Your task to perform on an android device: uninstall "Yahoo Mail" Image 0: 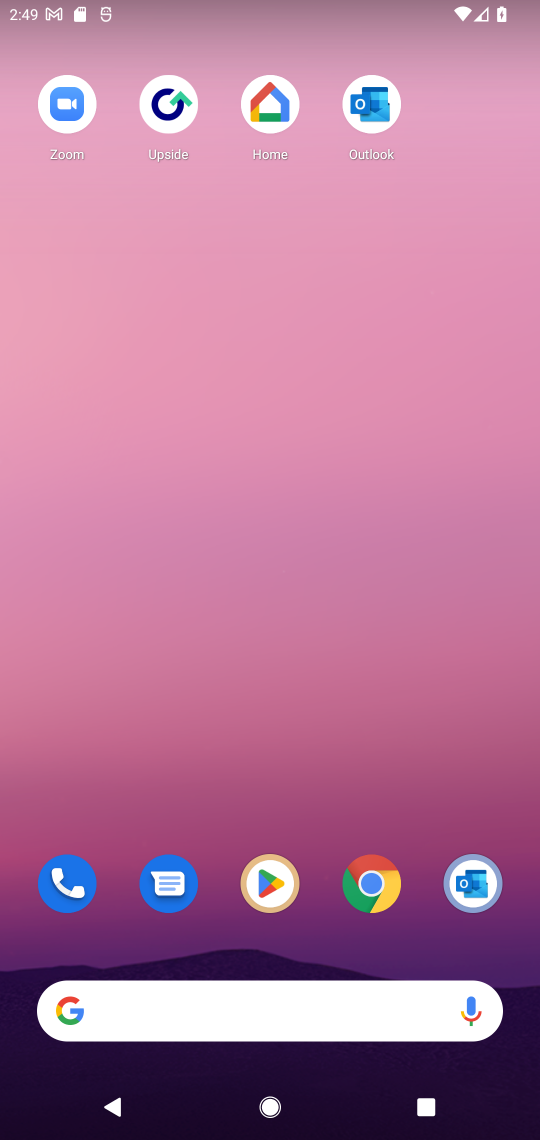
Step 0: drag from (301, 1003) to (220, 178)
Your task to perform on an android device: uninstall "Yahoo Mail" Image 1: 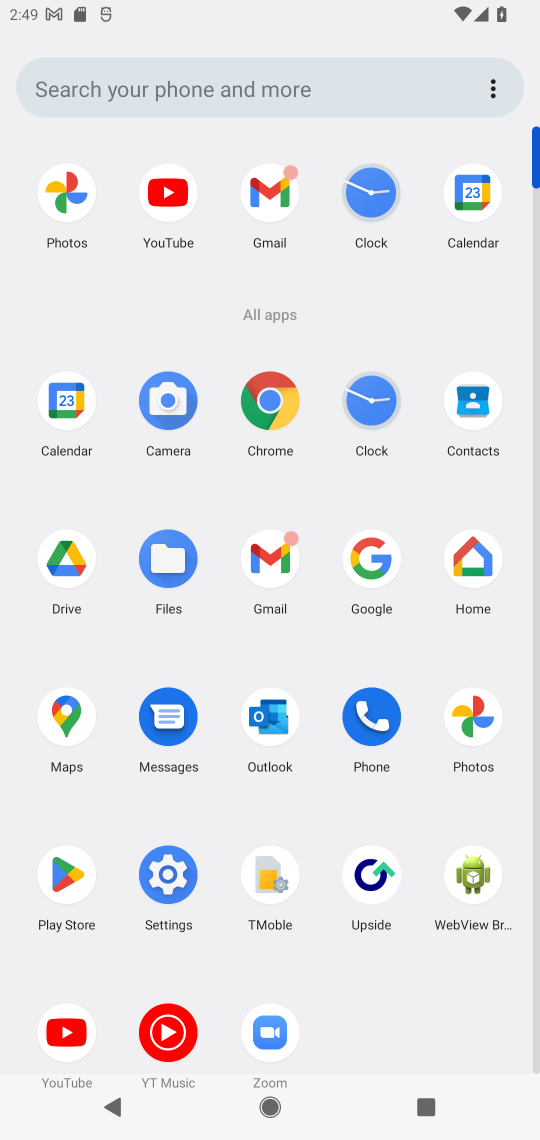
Step 1: click (78, 864)
Your task to perform on an android device: uninstall "Yahoo Mail" Image 2: 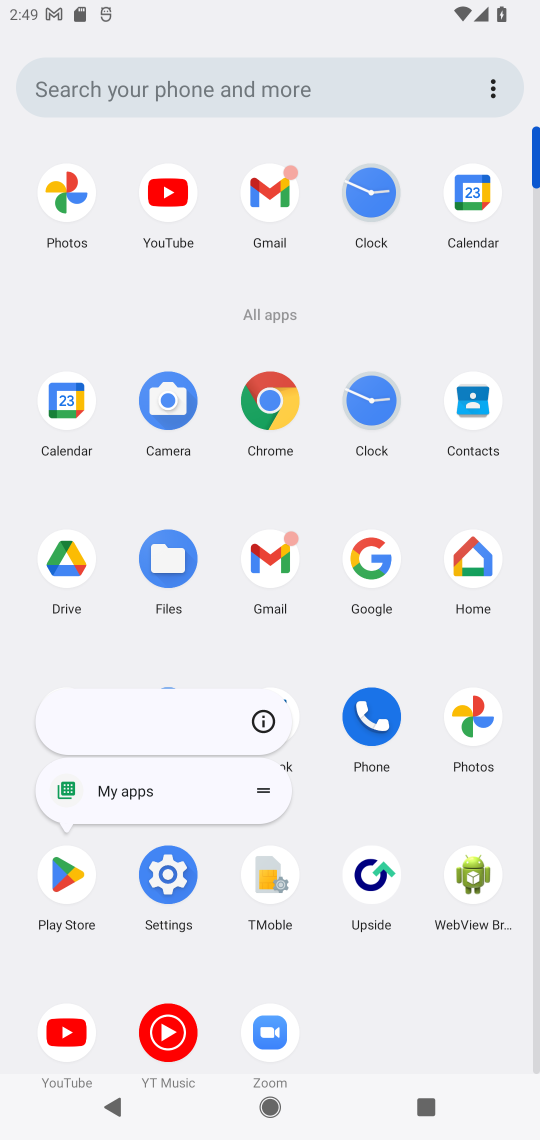
Step 2: click (54, 887)
Your task to perform on an android device: uninstall "Yahoo Mail" Image 3: 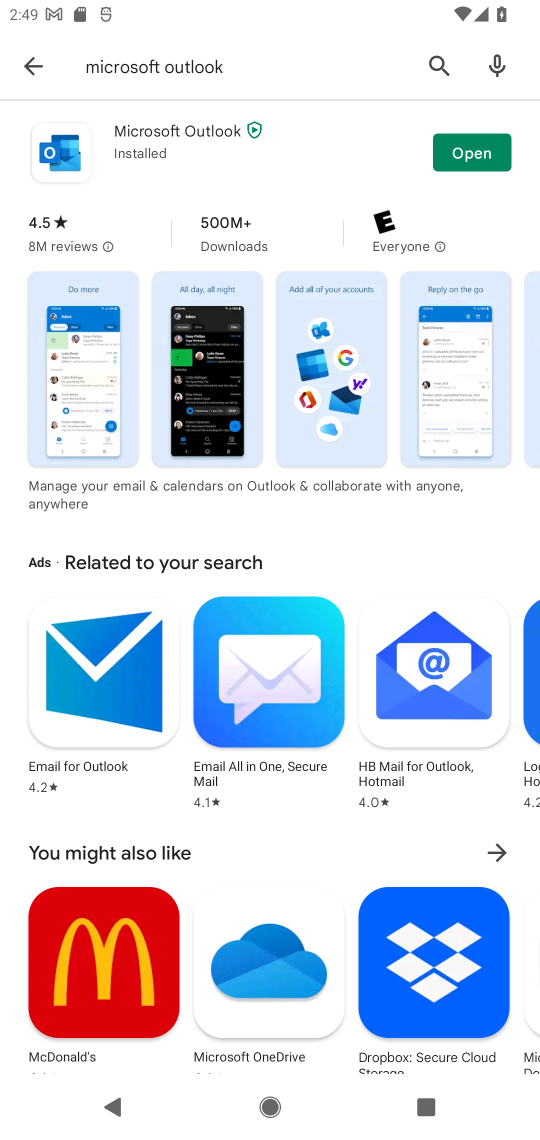
Step 3: click (438, 67)
Your task to perform on an android device: uninstall "Yahoo Mail" Image 4: 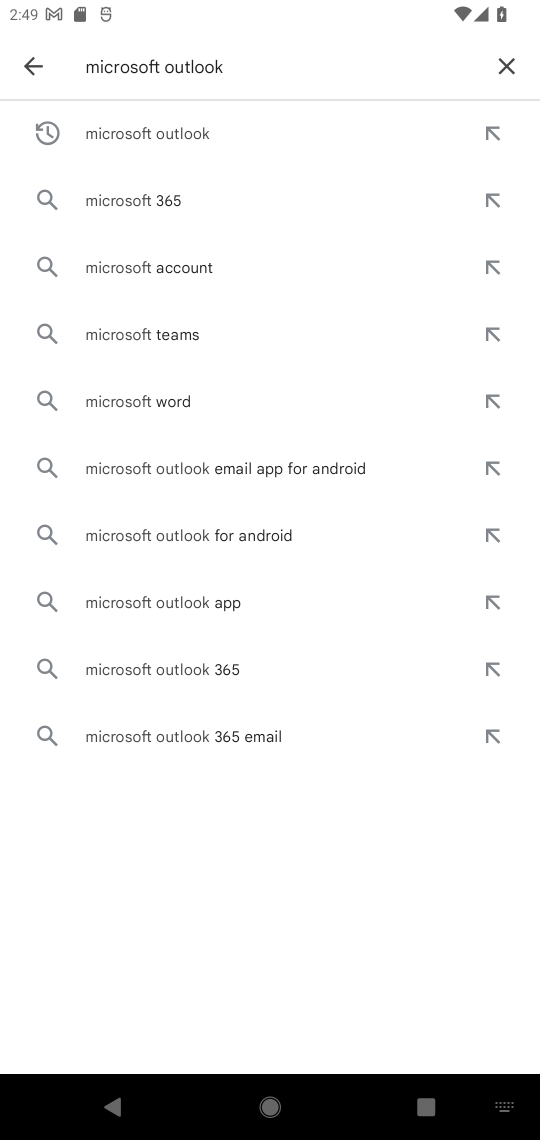
Step 4: click (499, 65)
Your task to perform on an android device: uninstall "Yahoo Mail" Image 5: 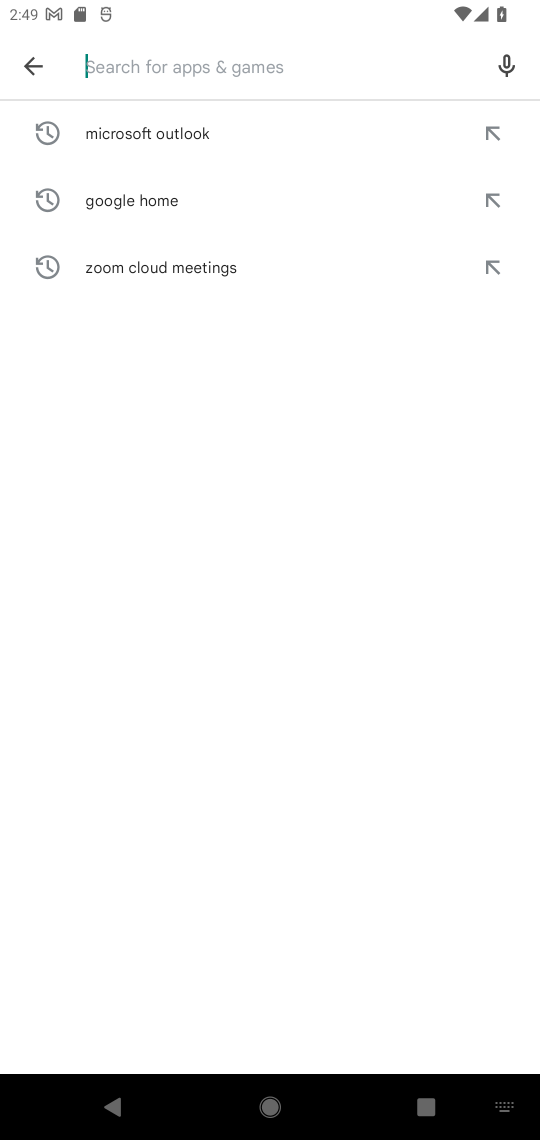
Step 5: type "Yahoo Mail"
Your task to perform on an android device: uninstall "Yahoo Mail" Image 6: 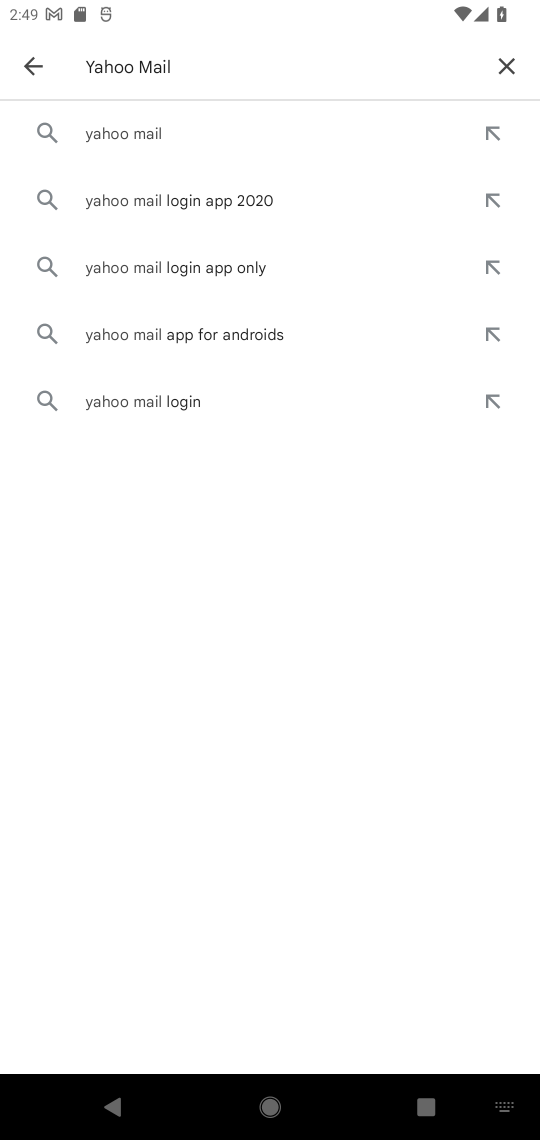
Step 6: click (103, 137)
Your task to perform on an android device: uninstall "Yahoo Mail" Image 7: 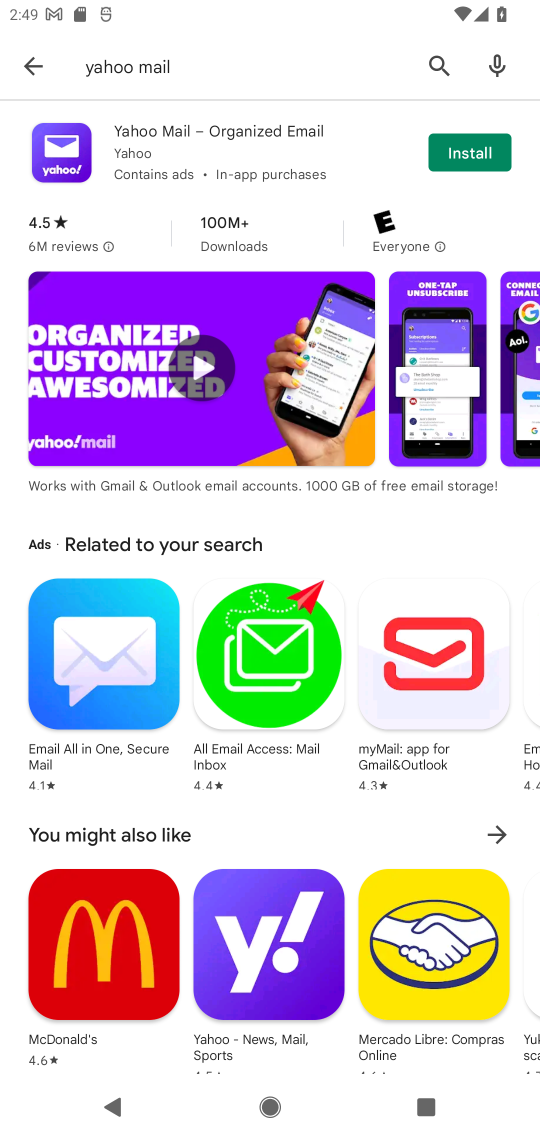
Step 7: task complete